Your task to perform on an android device: Open Amazon Image 0: 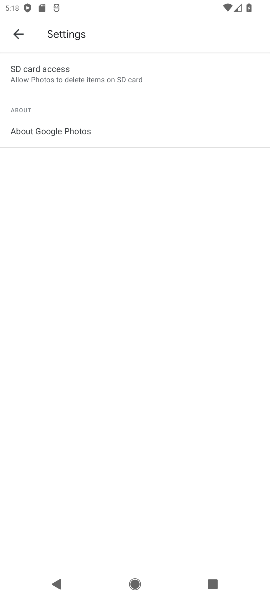
Step 0: press home button
Your task to perform on an android device: Open Amazon Image 1: 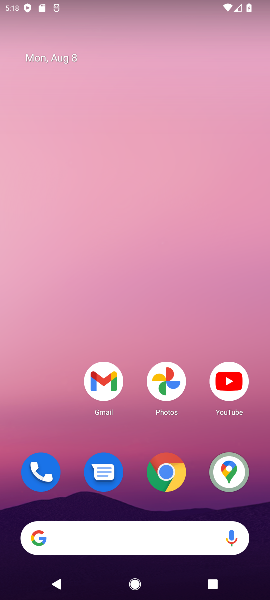
Step 1: drag from (58, 435) to (89, 1)
Your task to perform on an android device: Open Amazon Image 2: 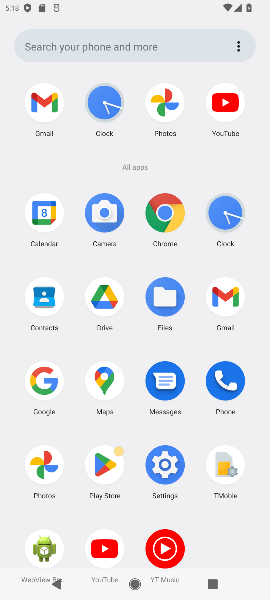
Step 2: click (41, 387)
Your task to perform on an android device: Open Amazon Image 3: 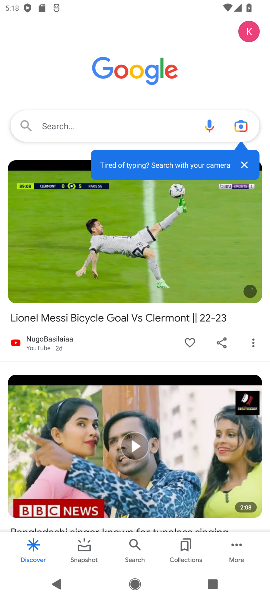
Step 3: click (86, 124)
Your task to perform on an android device: Open Amazon Image 4: 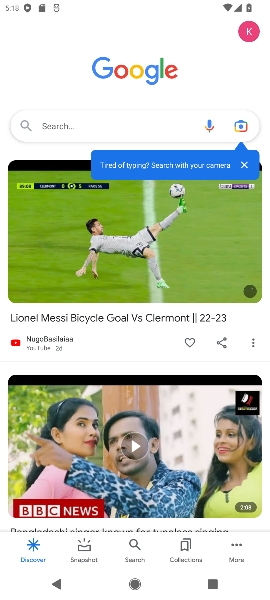
Step 4: type "Amazon"
Your task to perform on an android device: Open Amazon Image 5: 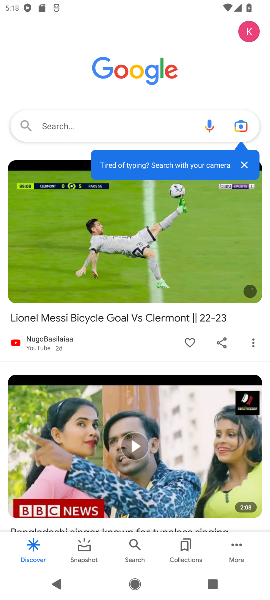
Step 5: click (86, 124)
Your task to perform on an android device: Open Amazon Image 6: 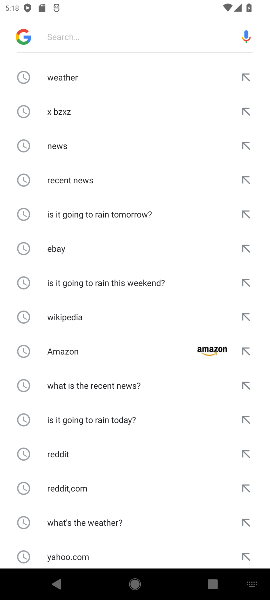
Step 6: click (210, 346)
Your task to perform on an android device: Open Amazon Image 7: 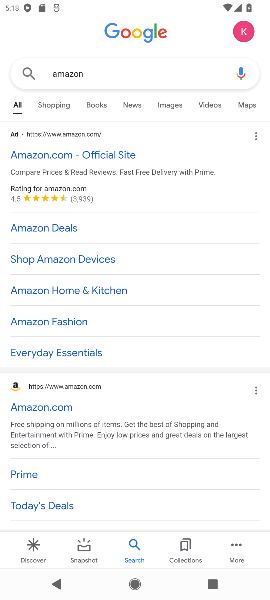
Step 7: click (31, 406)
Your task to perform on an android device: Open Amazon Image 8: 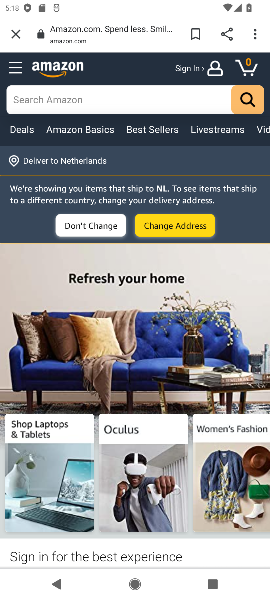
Step 8: task complete